Your task to perform on an android device: When is my next meeting? Image 0: 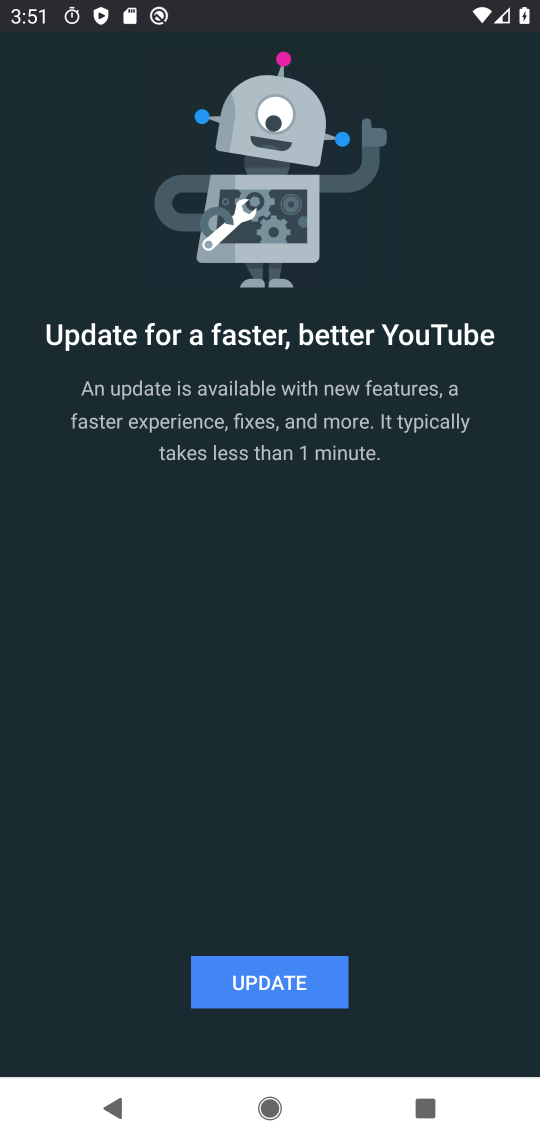
Step 0: press home button
Your task to perform on an android device: When is my next meeting? Image 1: 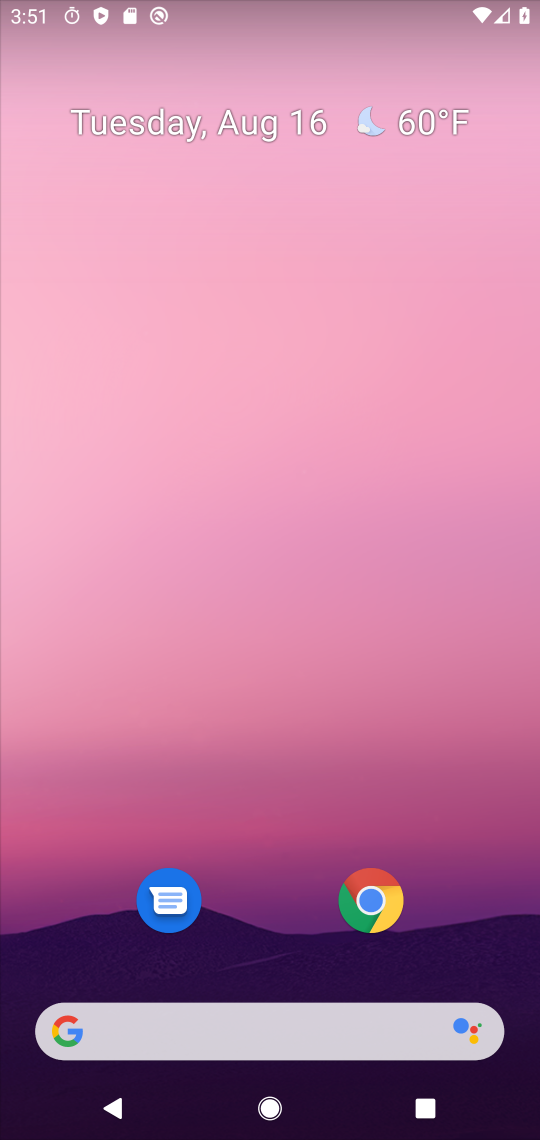
Step 1: drag from (280, 949) to (254, 81)
Your task to perform on an android device: When is my next meeting? Image 2: 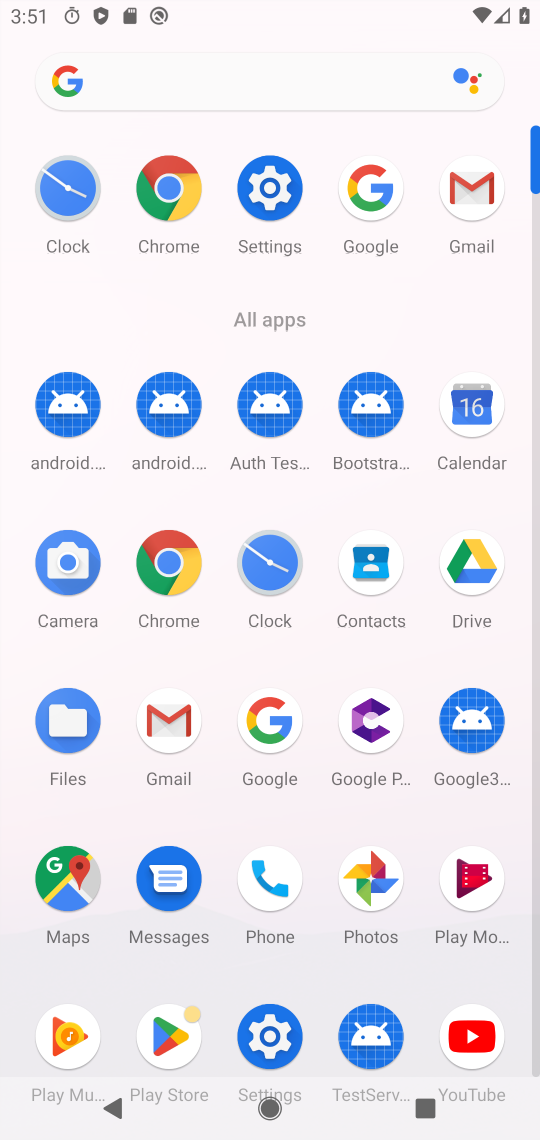
Step 2: click (479, 418)
Your task to perform on an android device: When is my next meeting? Image 3: 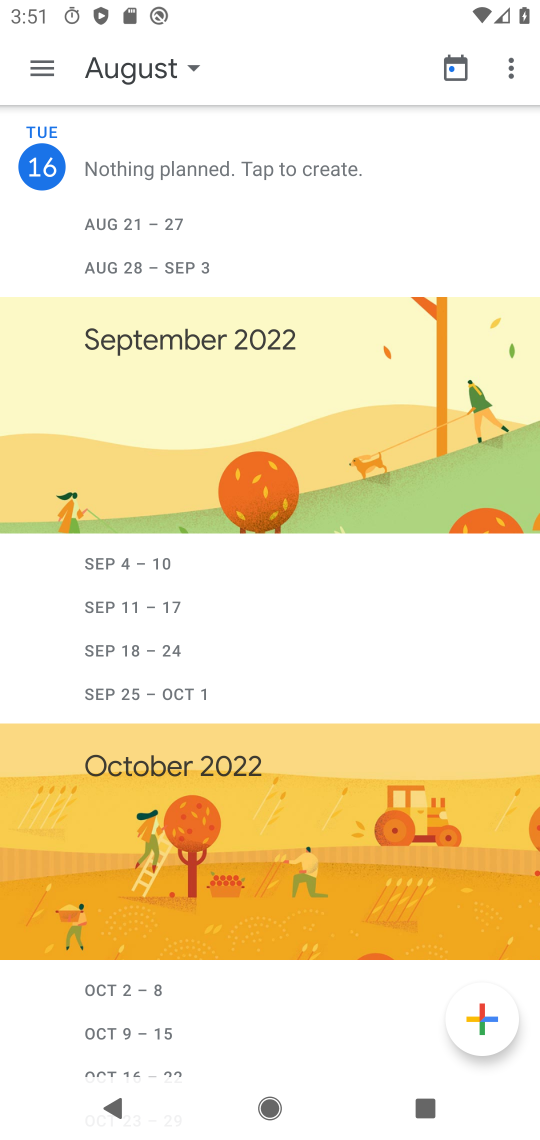
Step 3: click (186, 68)
Your task to perform on an android device: When is my next meeting? Image 4: 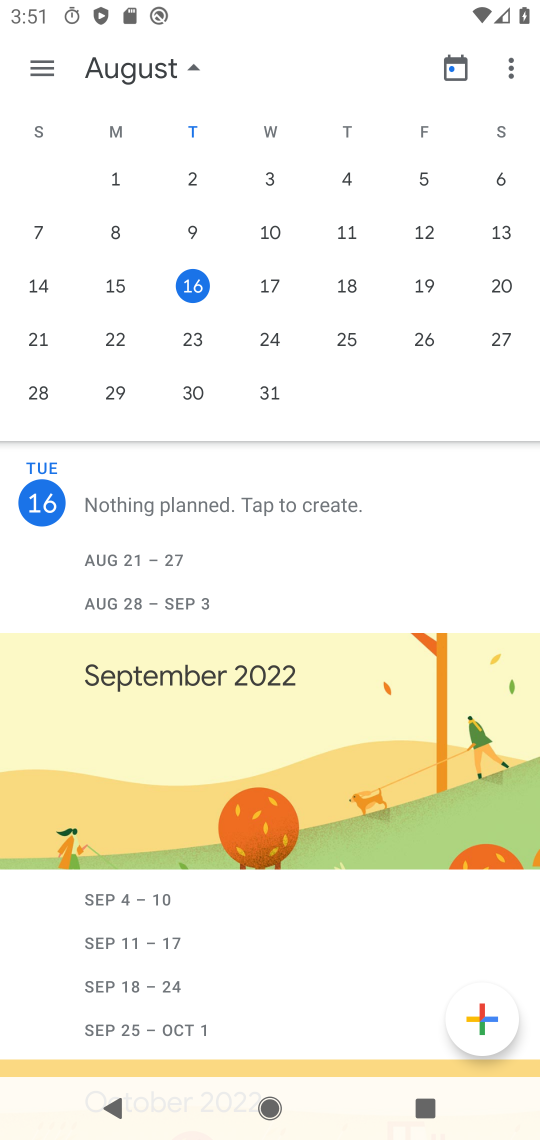
Step 4: click (264, 291)
Your task to perform on an android device: When is my next meeting? Image 5: 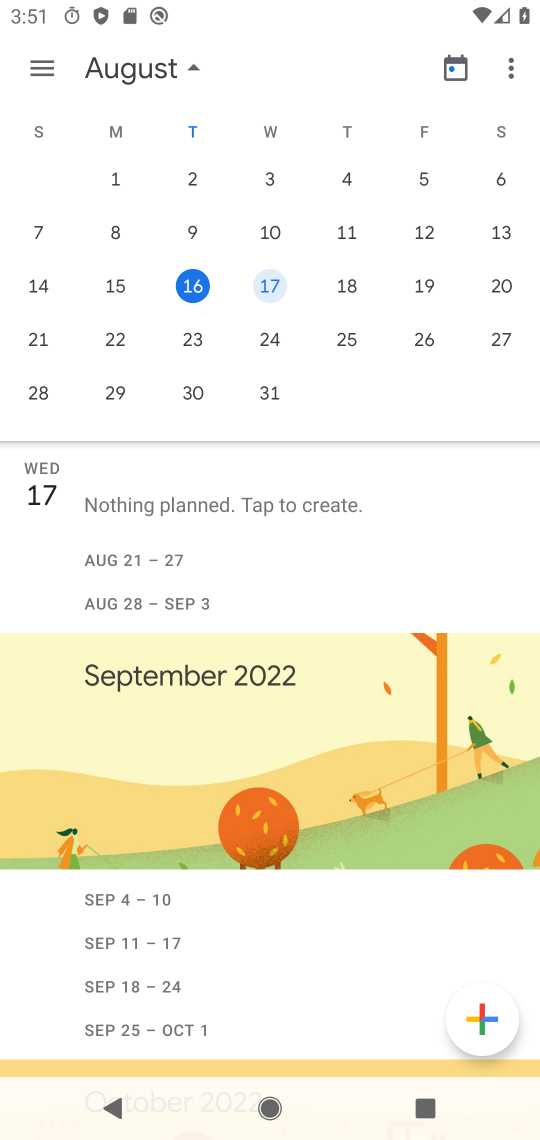
Step 5: click (264, 291)
Your task to perform on an android device: When is my next meeting? Image 6: 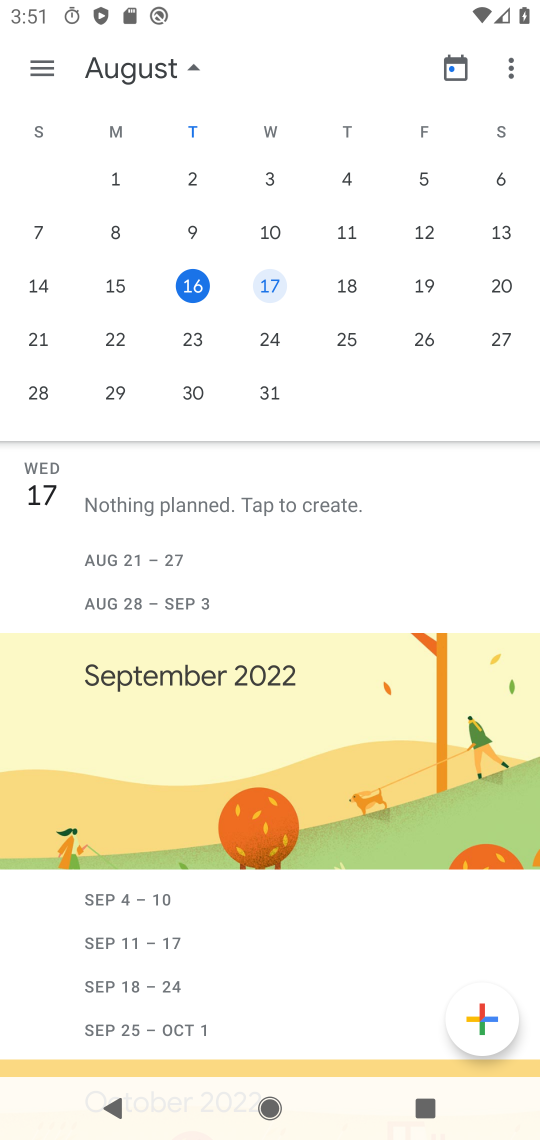
Step 6: click (264, 291)
Your task to perform on an android device: When is my next meeting? Image 7: 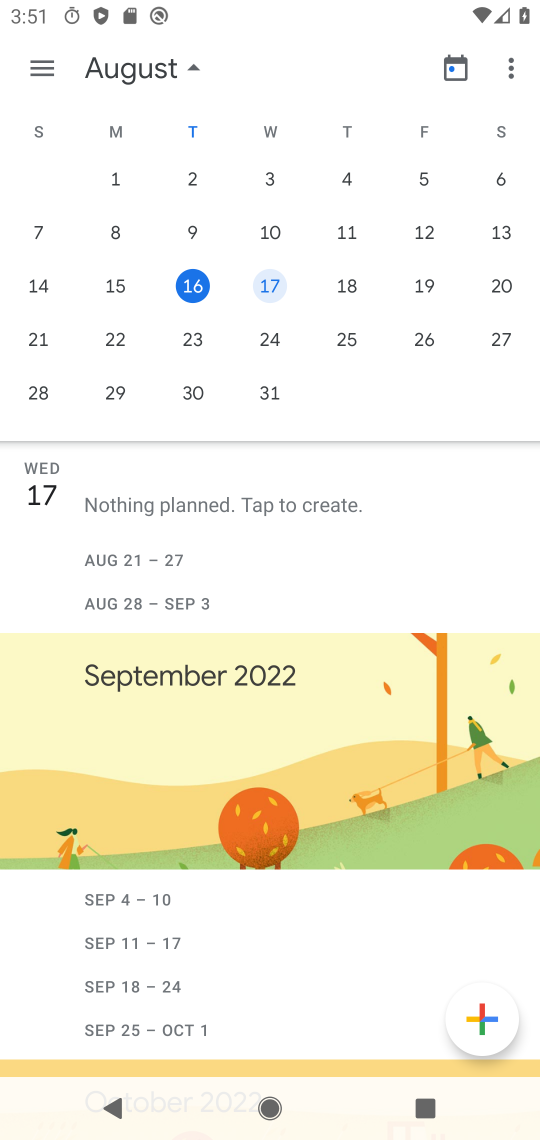
Step 7: click (264, 291)
Your task to perform on an android device: When is my next meeting? Image 8: 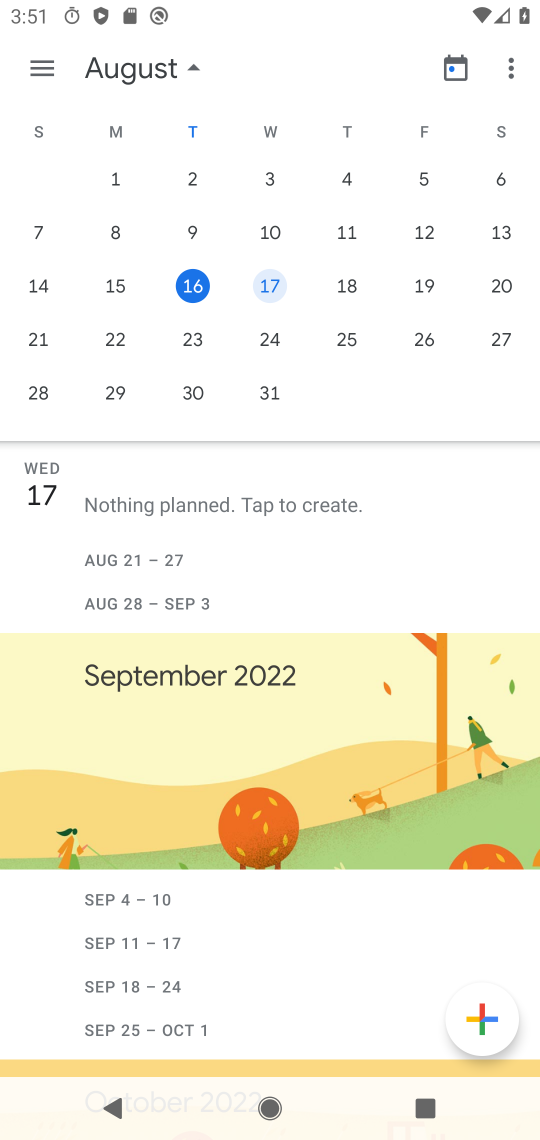
Step 8: click (264, 291)
Your task to perform on an android device: When is my next meeting? Image 9: 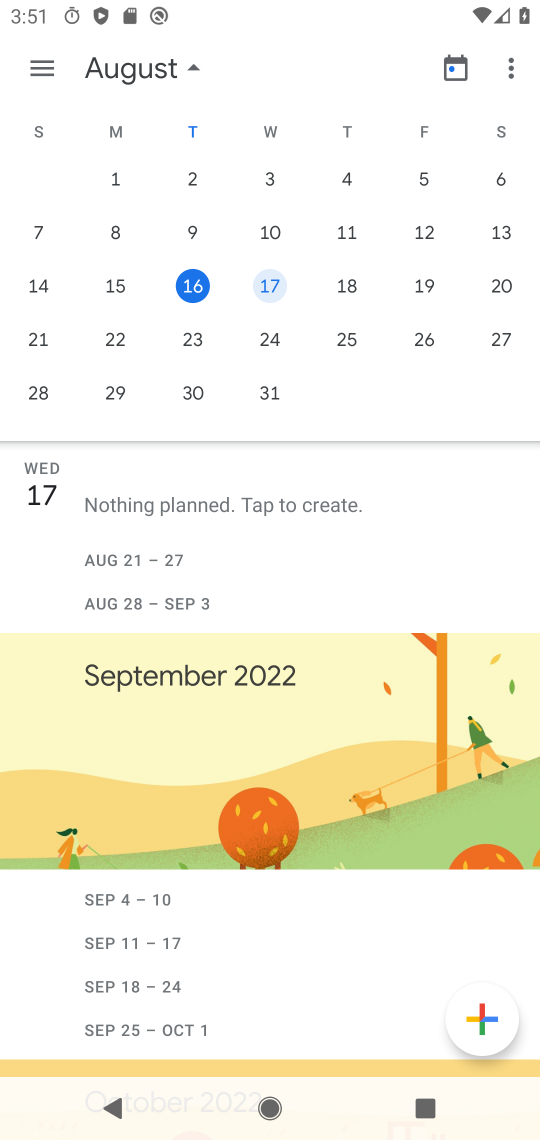
Step 9: click (264, 291)
Your task to perform on an android device: When is my next meeting? Image 10: 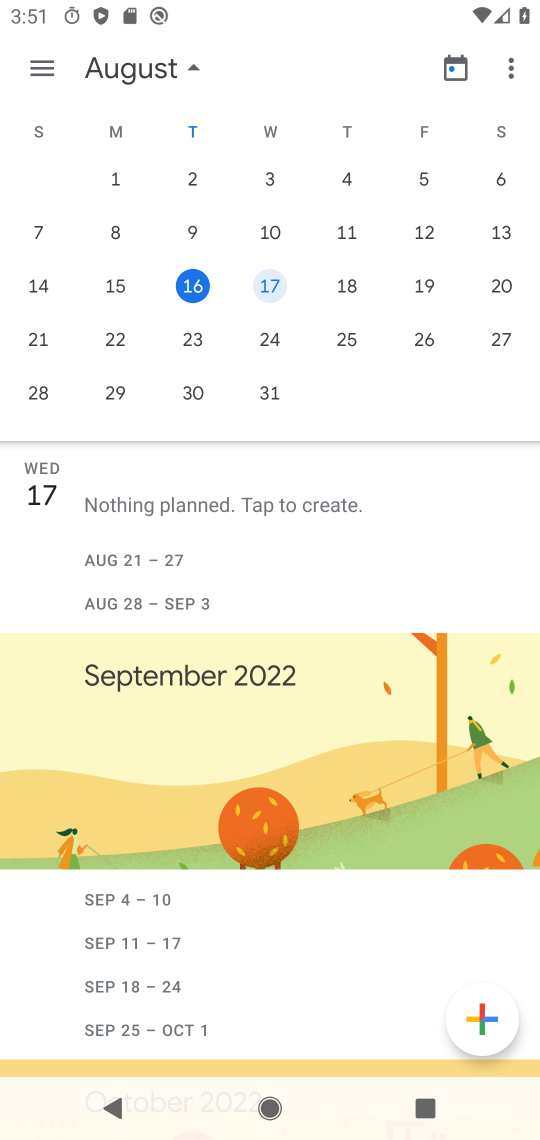
Step 10: click (264, 291)
Your task to perform on an android device: When is my next meeting? Image 11: 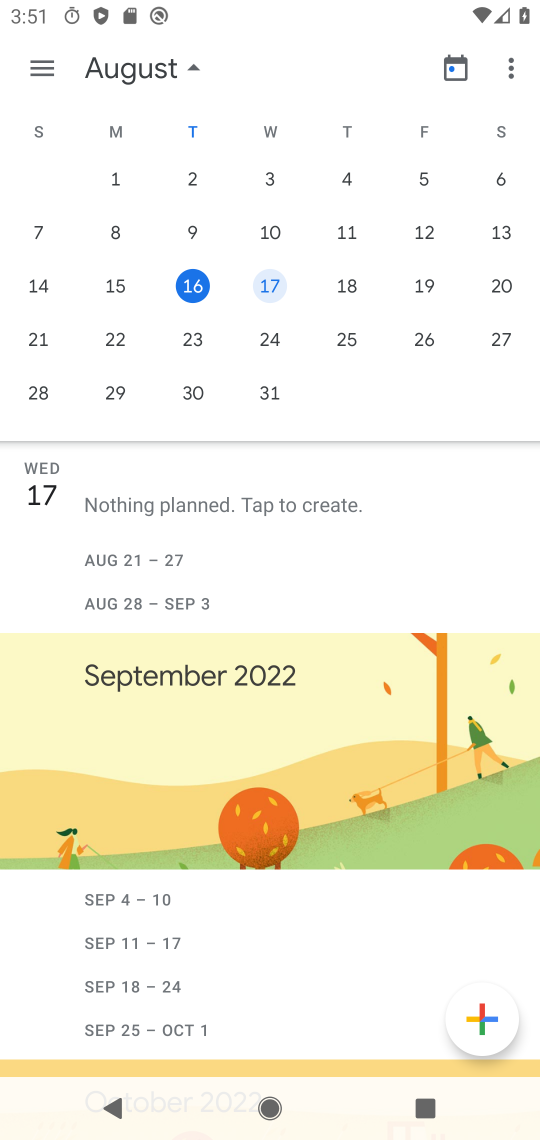
Step 11: click (264, 291)
Your task to perform on an android device: When is my next meeting? Image 12: 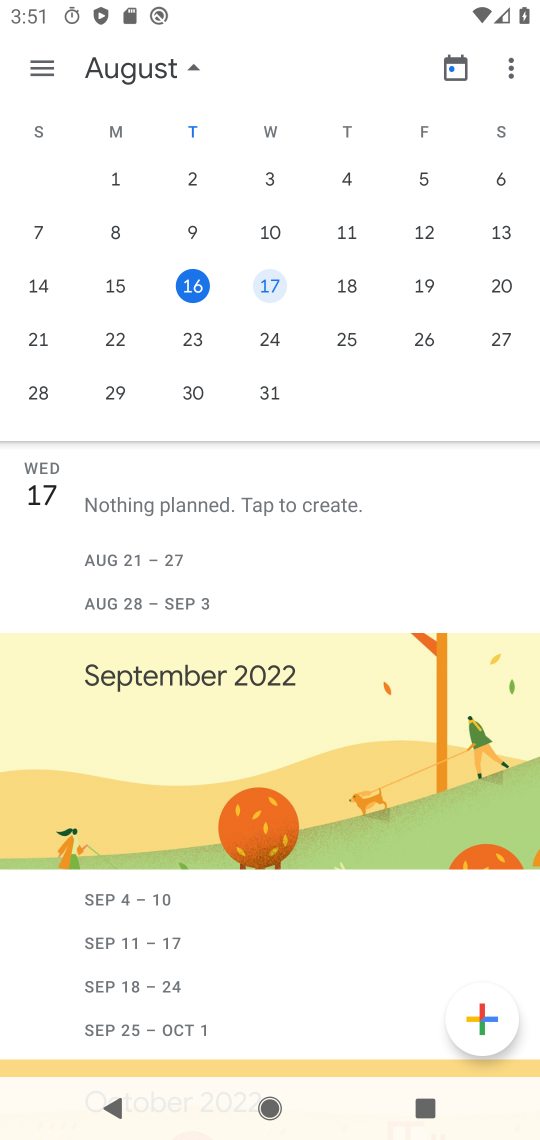
Step 12: click (264, 291)
Your task to perform on an android device: When is my next meeting? Image 13: 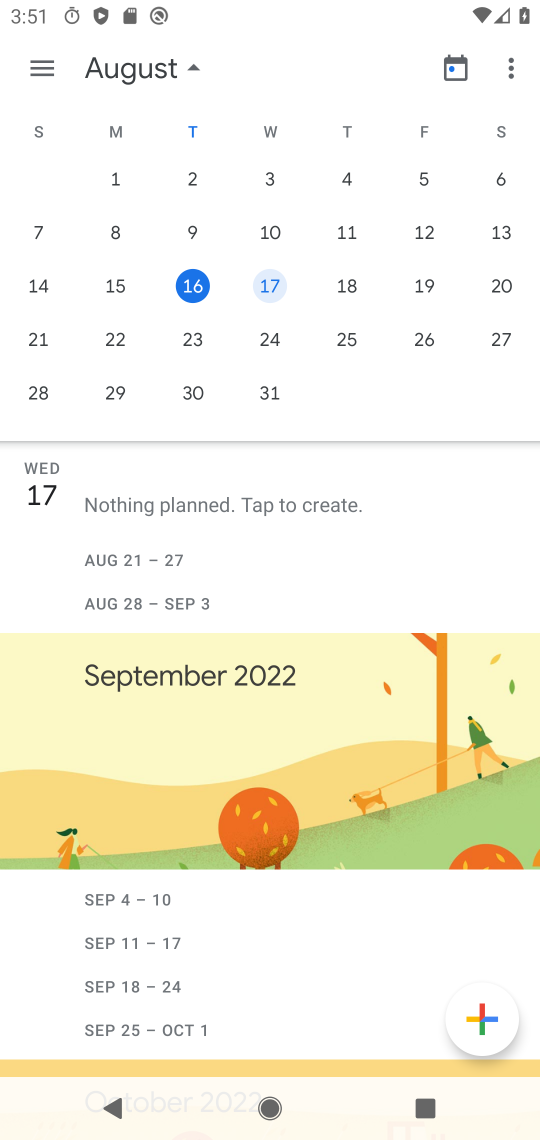
Step 13: click (264, 291)
Your task to perform on an android device: When is my next meeting? Image 14: 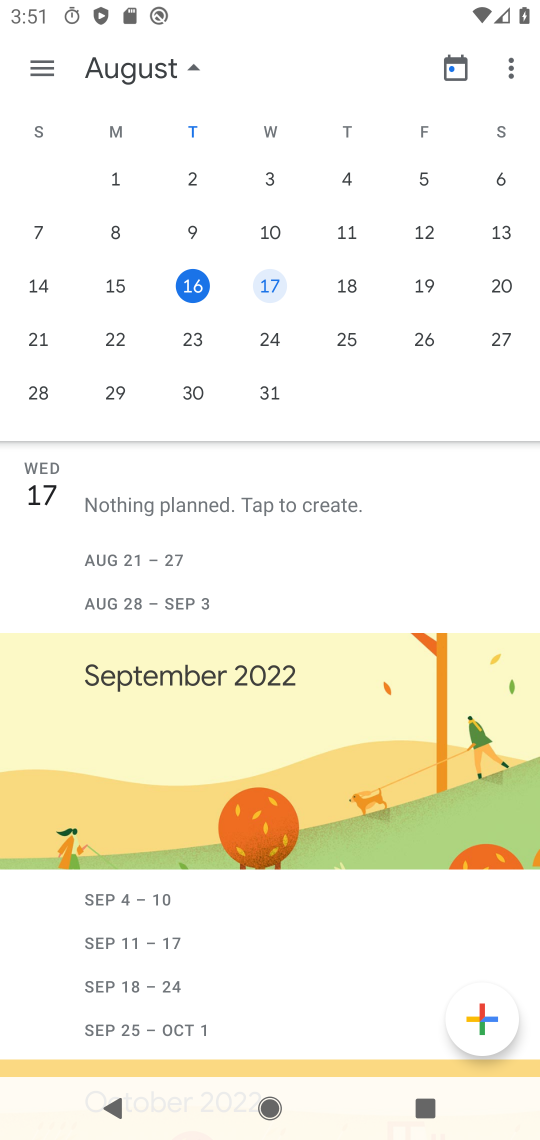
Step 14: click (264, 291)
Your task to perform on an android device: When is my next meeting? Image 15: 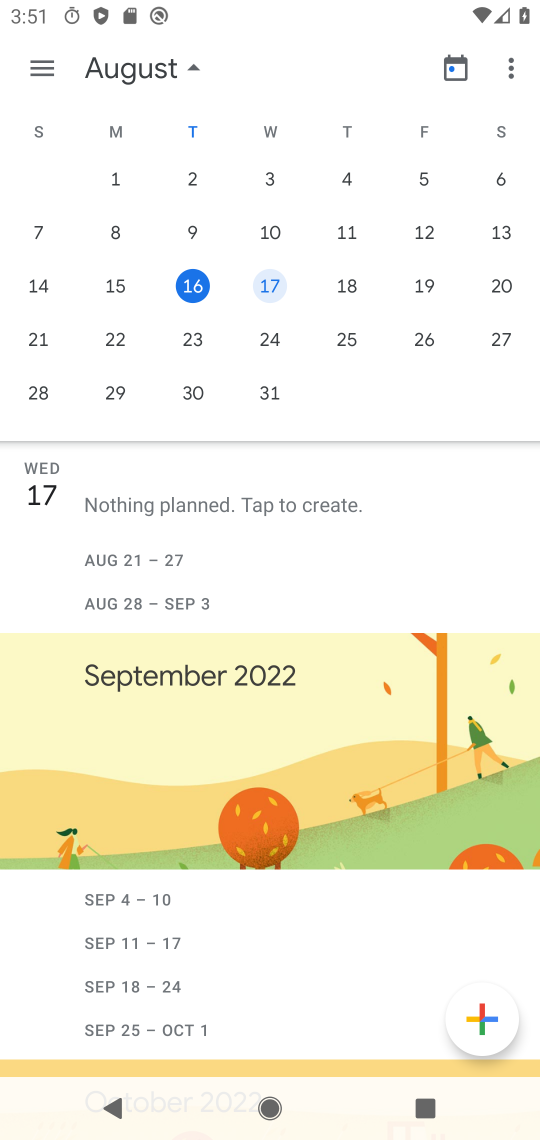
Step 15: click (264, 291)
Your task to perform on an android device: When is my next meeting? Image 16: 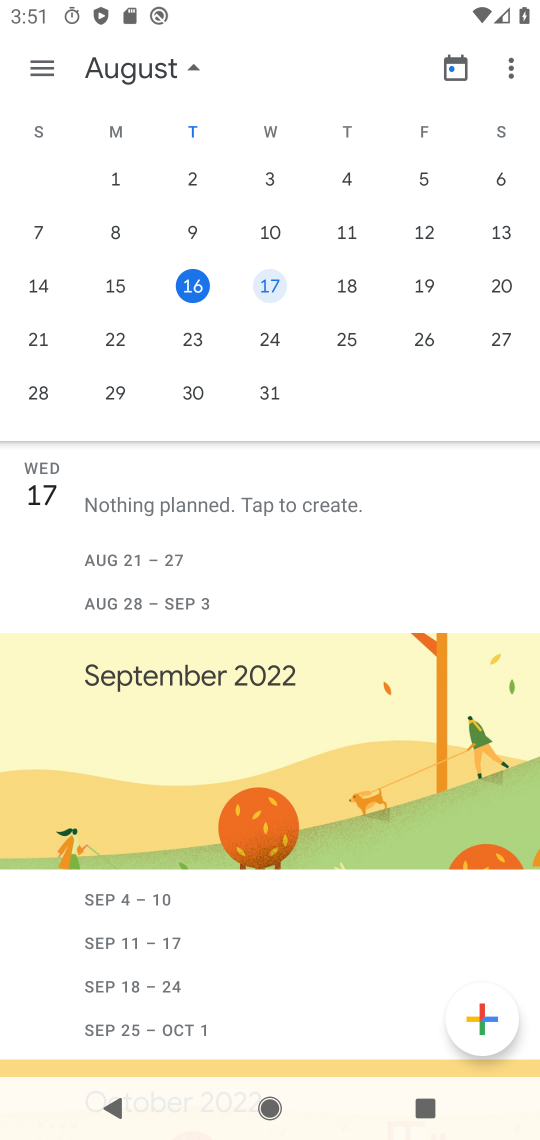
Step 16: click (264, 291)
Your task to perform on an android device: When is my next meeting? Image 17: 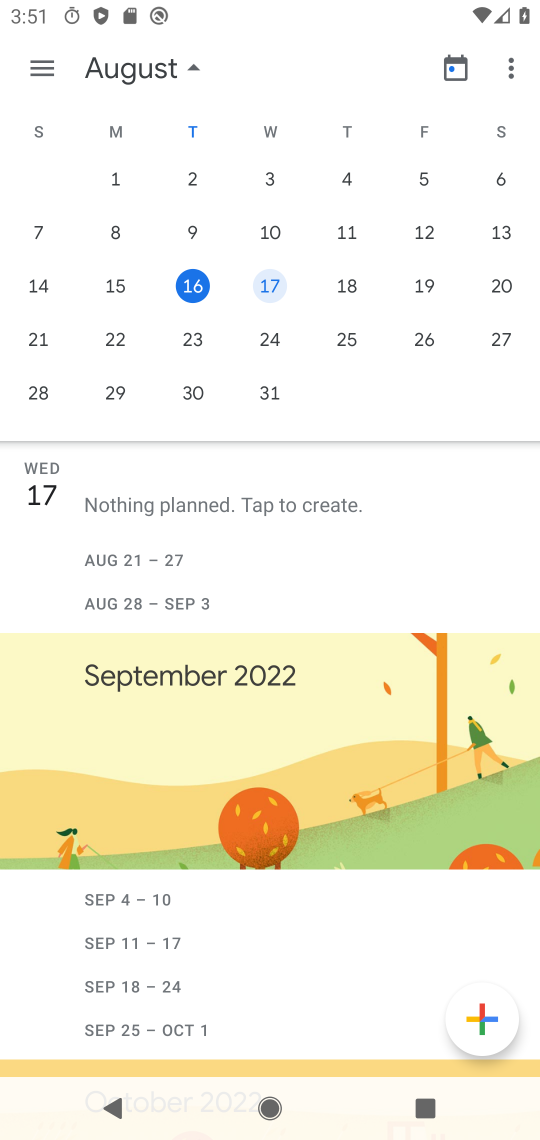
Step 17: click (264, 291)
Your task to perform on an android device: When is my next meeting? Image 18: 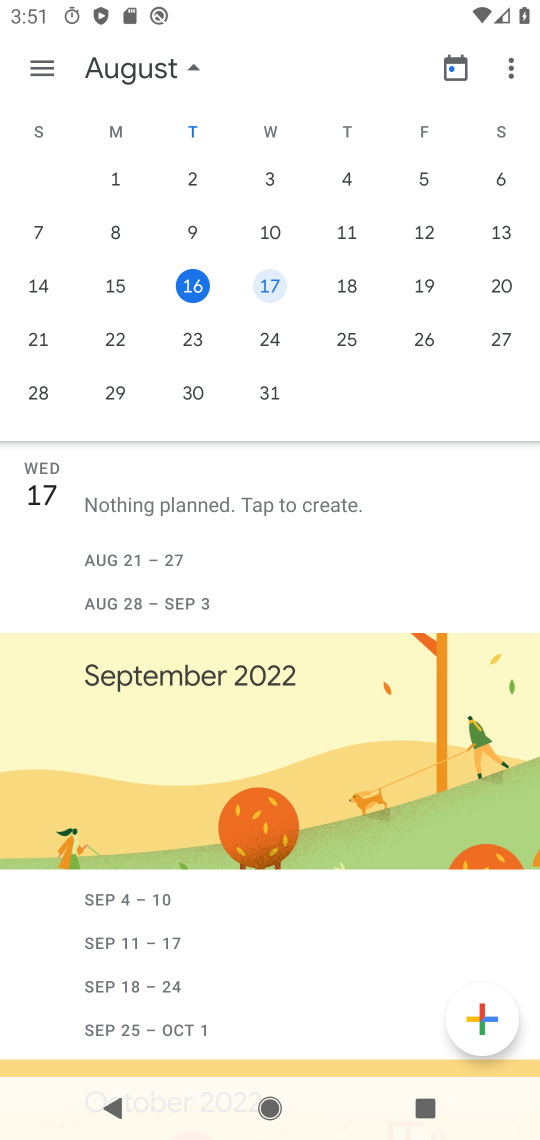
Step 18: click (264, 291)
Your task to perform on an android device: When is my next meeting? Image 19: 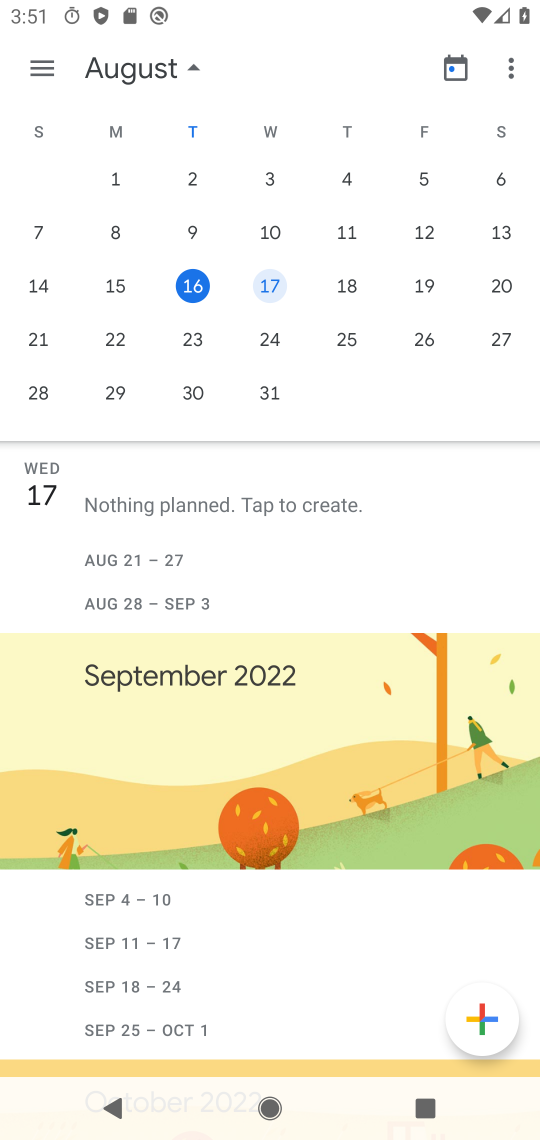
Step 19: click (264, 291)
Your task to perform on an android device: When is my next meeting? Image 20: 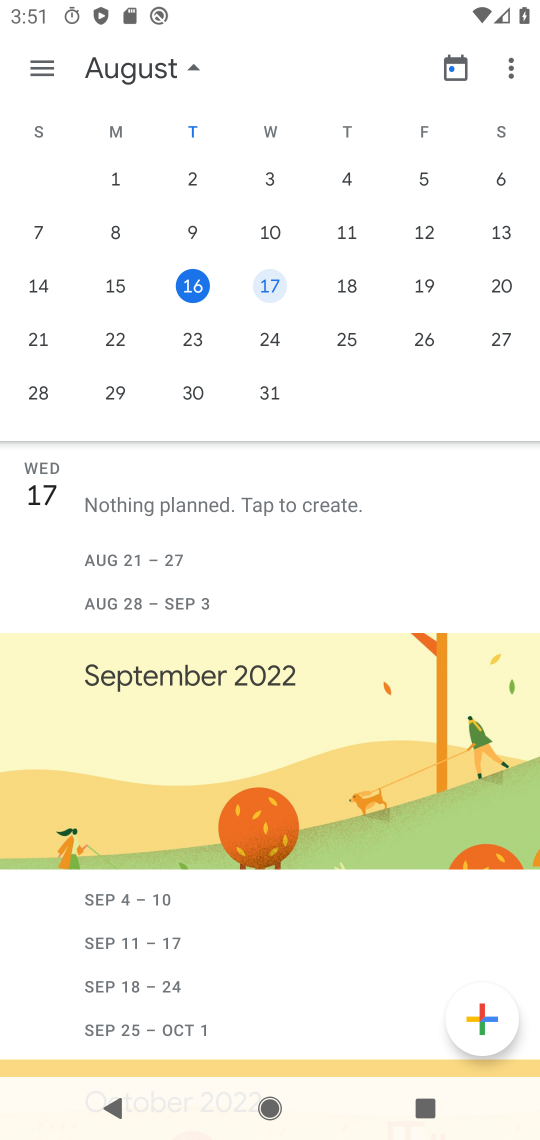
Step 20: click (264, 291)
Your task to perform on an android device: When is my next meeting? Image 21: 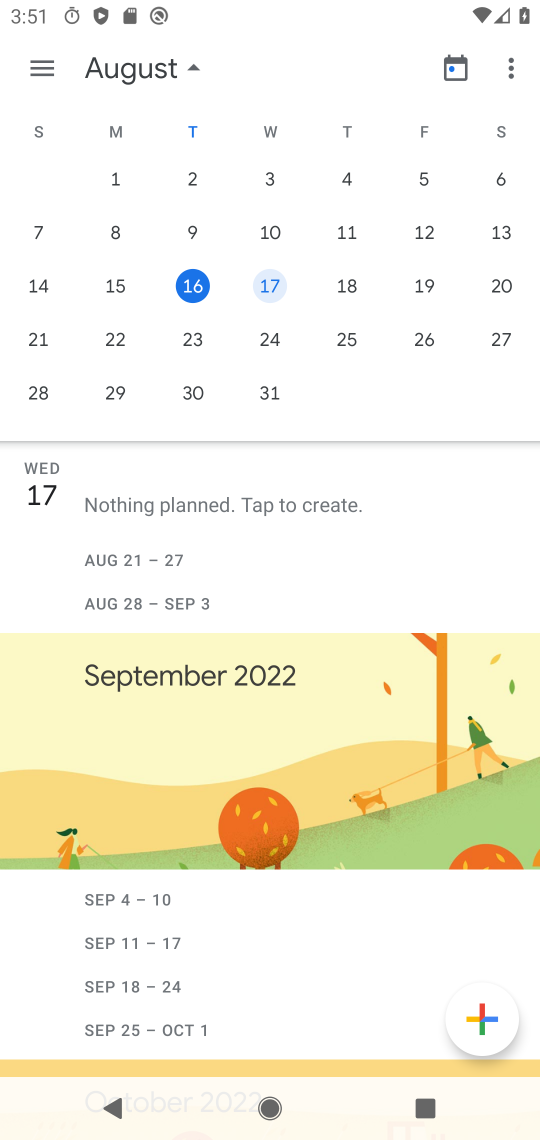
Step 21: click (264, 291)
Your task to perform on an android device: When is my next meeting? Image 22: 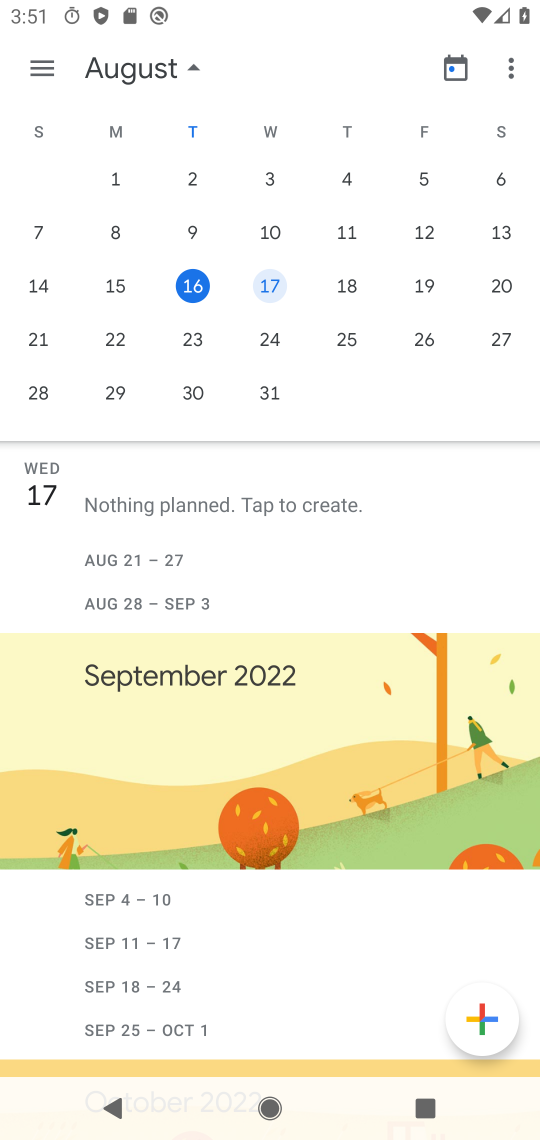
Step 22: task complete